Your task to perform on an android device: How much does a 3 bedroom apartment rent for in Chicago? Image 0: 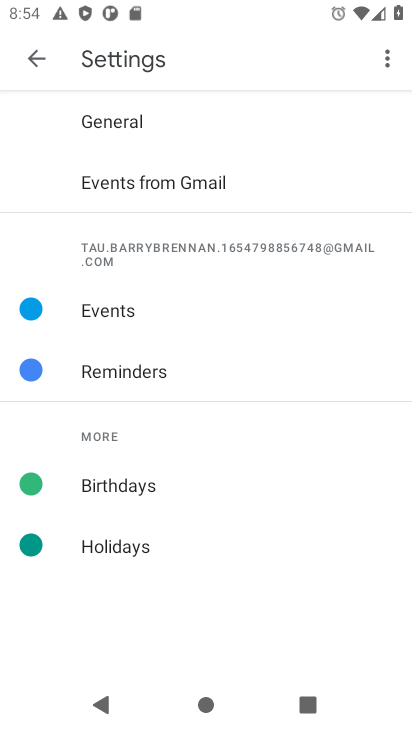
Step 0: click (134, 542)
Your task to perform on an android device: How much does a 3 bedroom apartment rent for in Chicago? Image 1: 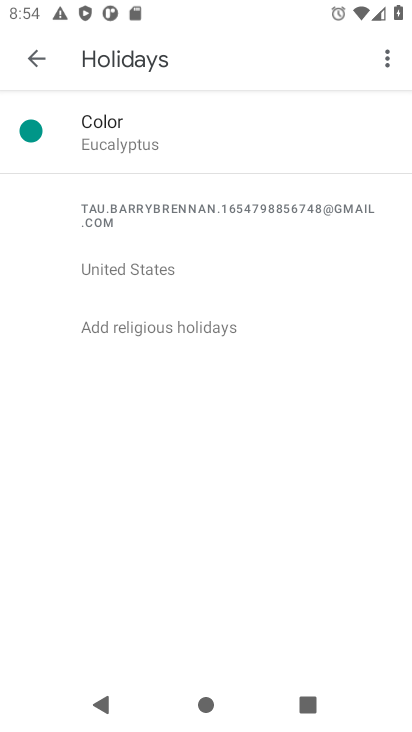
Step 1: press home button
Your task to perform on an android device: How much does a 3 bedroom apartment rent for in Chicago? Image 2: 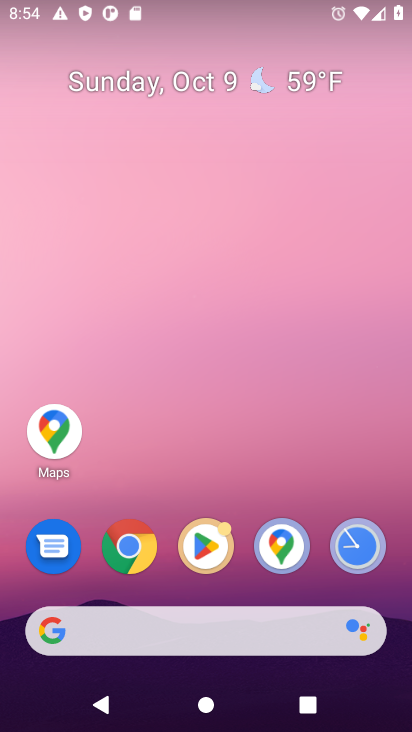
Step 2: click (120, 543)
Your task to perform on an android device: How much does a 3 bedroom apartment rent for in Chicago? Image 3: 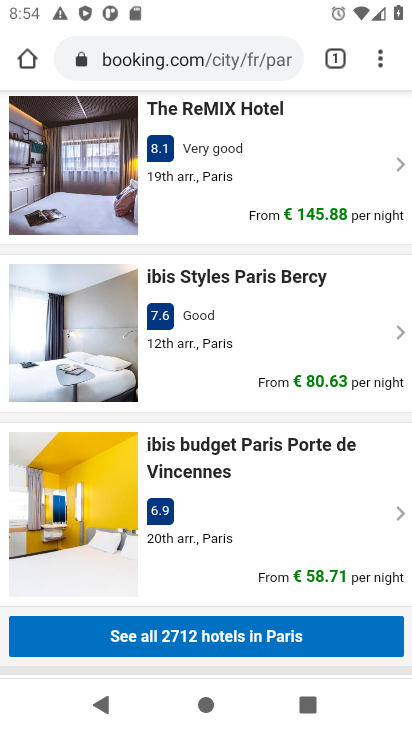
Step 3: click (185, 54)
Your task to perform on an android device: How much does a 3 bedroom apartment rent for in Chicago? Image 4: 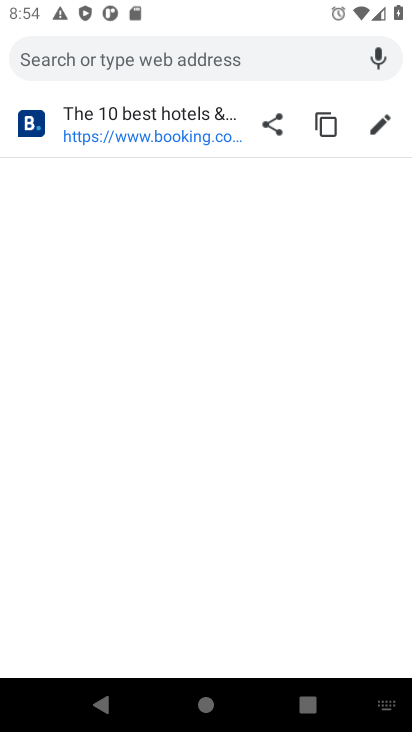
Step 4: type "3 bedroom apartment rent for chicago"
Your task to perform on an android device: How much does a 3 bedroom apartment rent for in Chicago? Image 5: 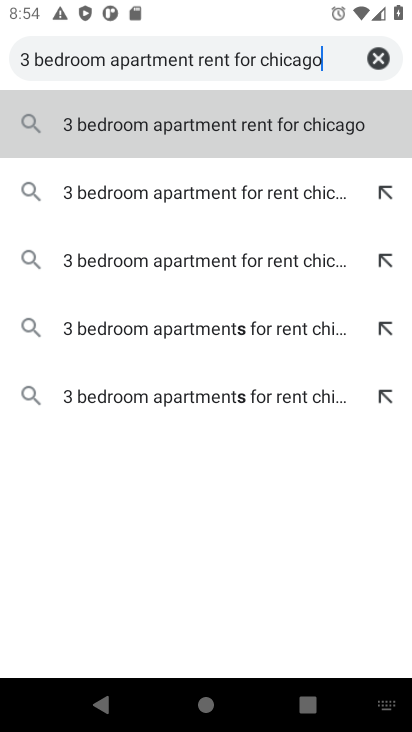
Step 5: press enter
Your task to perform on an android device: How much does a 3 bedroom apartment rent for in Chicago? Image 6: 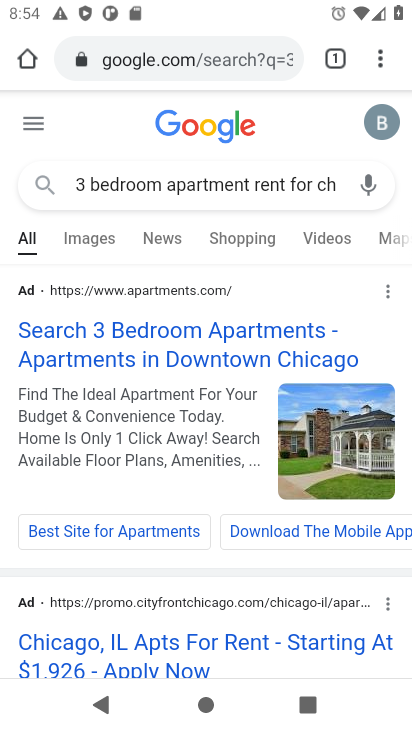
Step 6: click (160, 355)
Your task to perform on an android device: How much does a 3 bedroom apartment rent for in Chicago? Image 7: 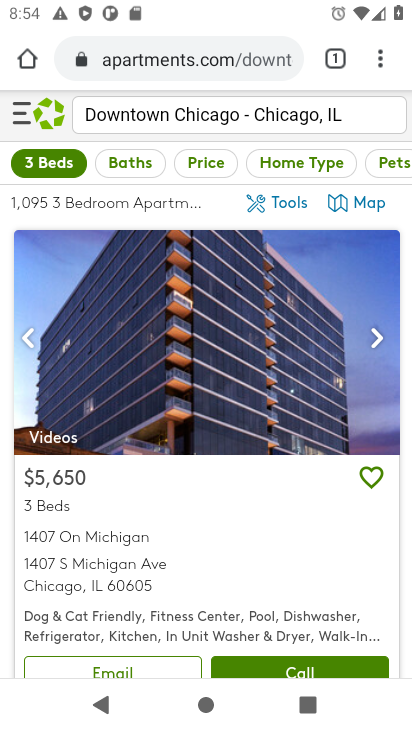
Step 7: task complete